Your task to perform on an android device: toggle show notifications on the lock screen Image 0: 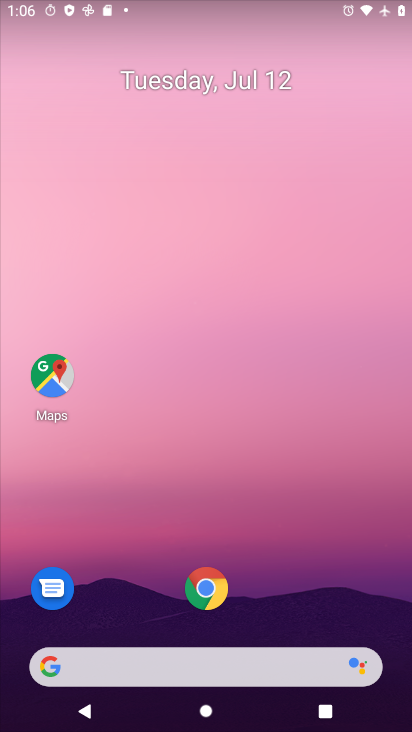
Step 0: drag from (182, 645) to (311, 12)
Your task to perform on an android device: toggle show notifications on the lock screen Image 1: 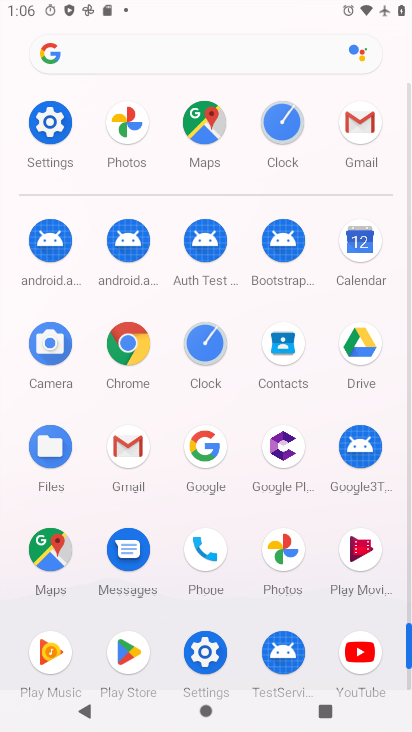
Step 1: click (57, 123)
Your task to perform on an android device: toggle show notifications on the lock screen Image 2: 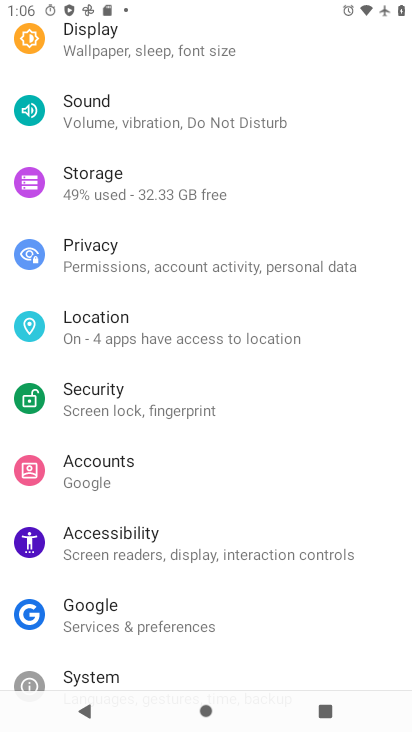
Step 2: drag from (281, 80) to (243, 630)
Your task to perform on an android device: toggle show notifications on the lock screen Image 3: 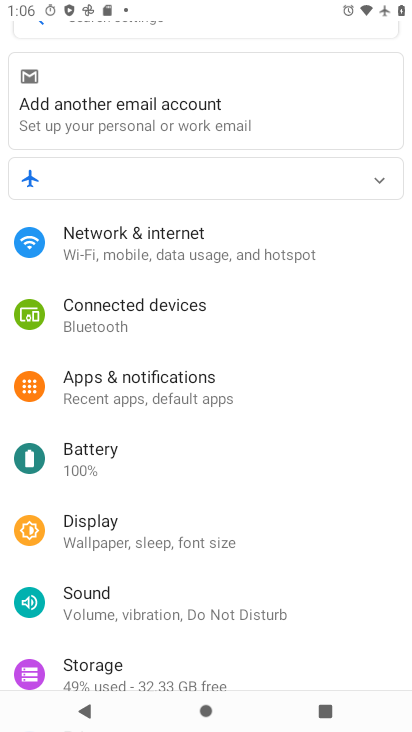
Step 3: click (201, 375)
Your task to perform on an android device: toggle show notifications on the lock screen Image 4: 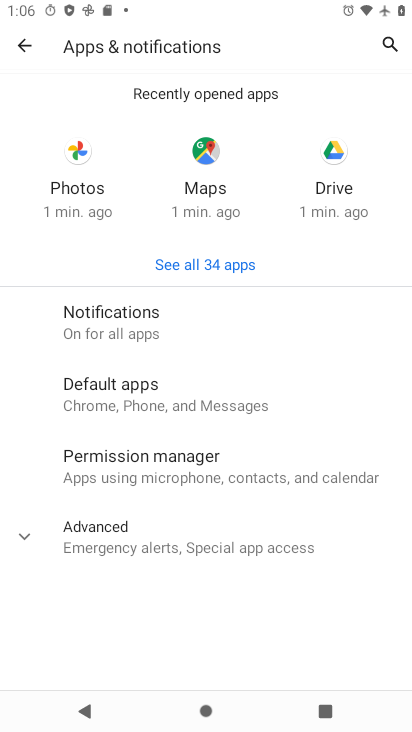
Step 4: click (139, 319)
Your task to perform on an android device: toggle show notifications on the lock screen Image 5: 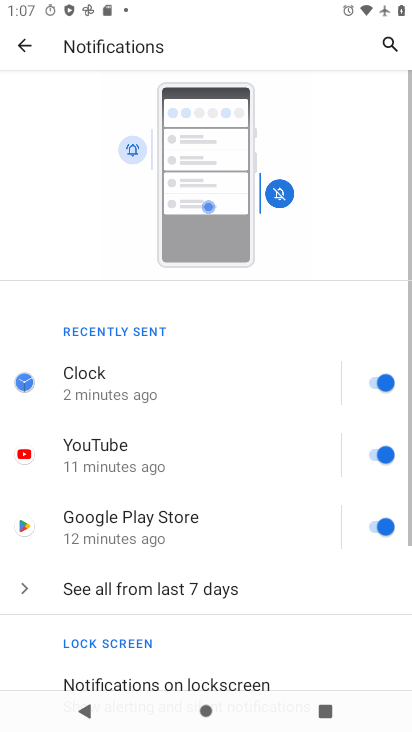
Step 5: drag from (199, 627) to (306, 138)
Your task to perform on an android device: toggle show notifications on the lock screen Image 6: 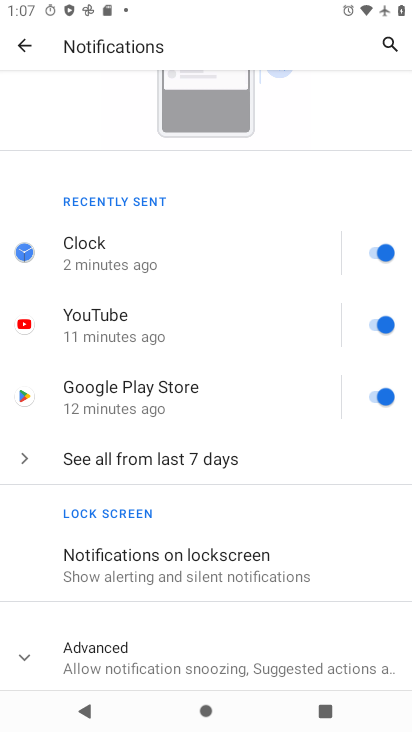
Step 6: click (229, 552)
Your task to perform on an android device: toggle show notifications on the lock screen Image 7: 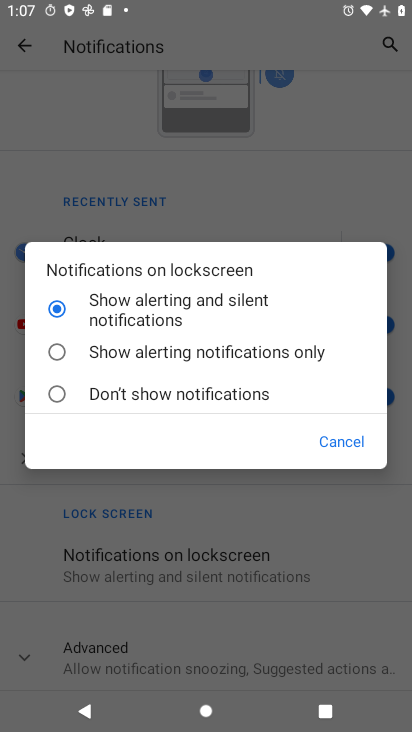
Step 7: click (58, 382)
Your task to perform on an android device: toggle show notifications on the lock screen Image 8: 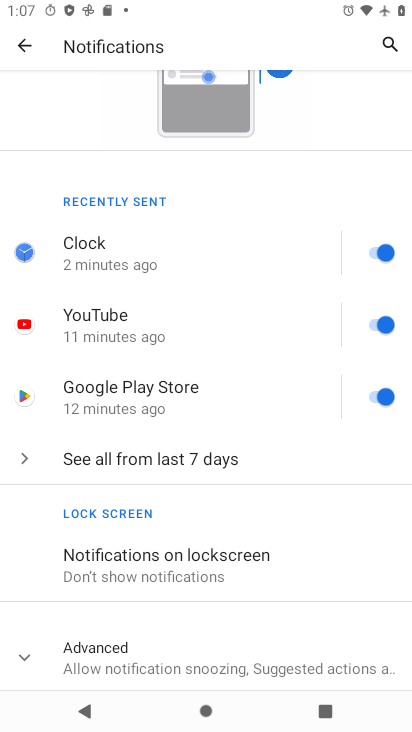
Step 8: task complete